Your task to perform on an android device: Is it going to rain today? Image 0: 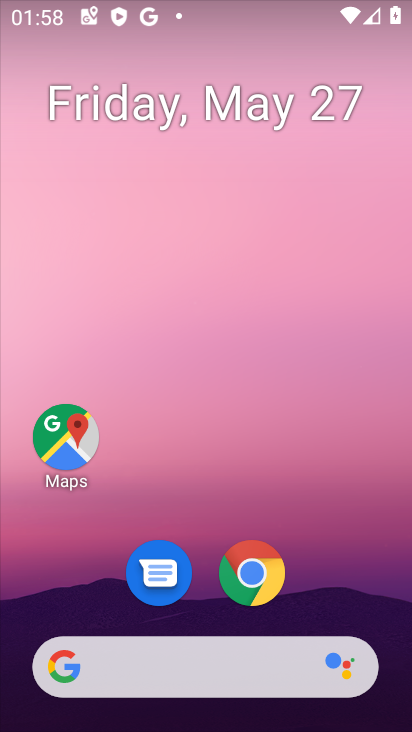
Step 0: click (209, 678)
Your task to perform on an android device: Is it going to rain today? Image 1: 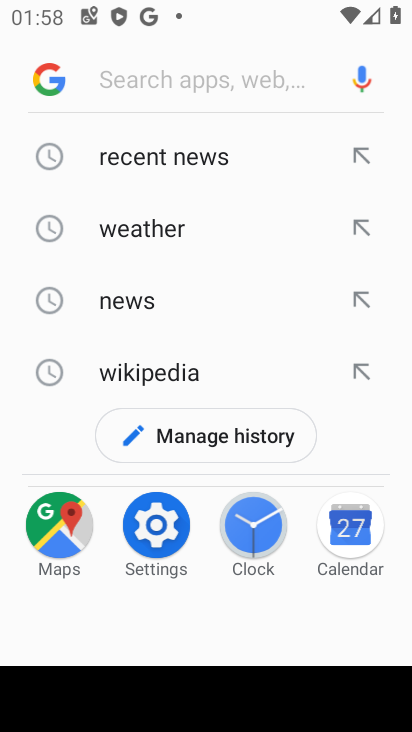
Step 1: click (171, 215)
Your task to perform on an android device: Is it going to rain today? Image 2: 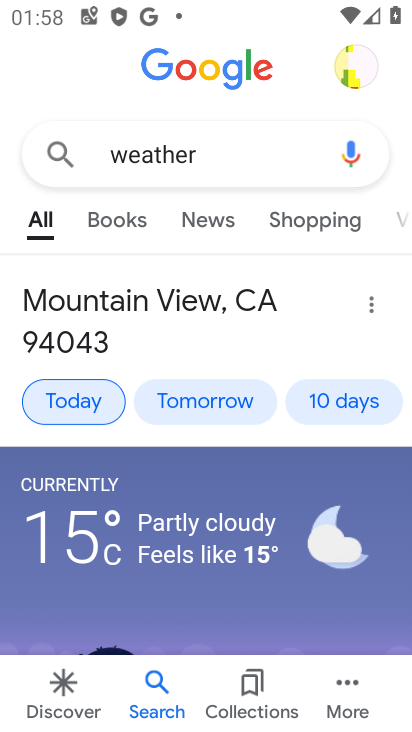
Step 2: click (98, 400)
Your task to perform on an android device: Is it going to rain today? Image 3: 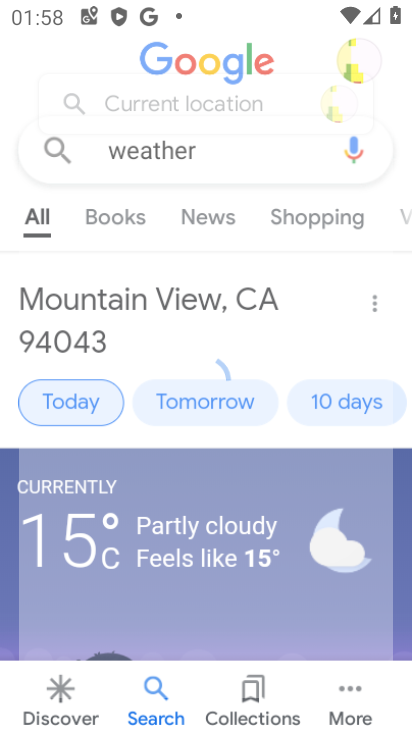
Step 3: task complete